Your task to perform on an android device: turn notification dots on Image 0: 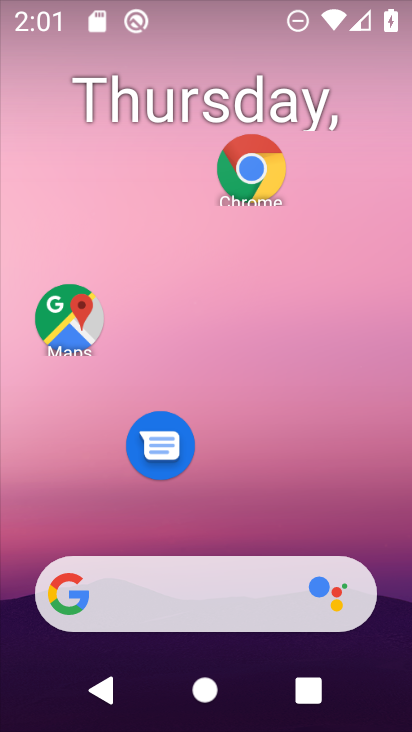
Step 0: drag from (269, 592) to (333, 183)
Your task to perform on an android device: turn notification dots on Image 1: 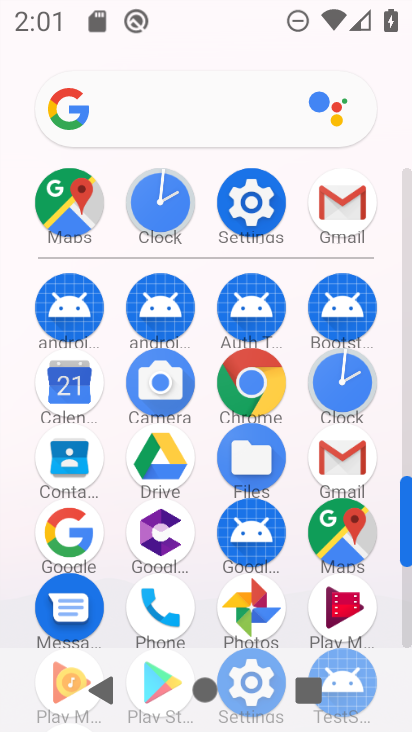
Step 1: click (260, 201)
Your task to perform on an android device: turn notification dots on Image 2: 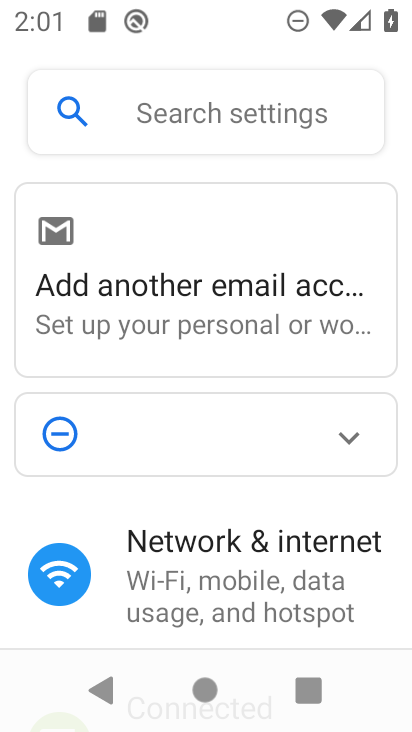
Step 2: click (197, 119)
Your task to perform on an android device: turn notification dots on Image 3: 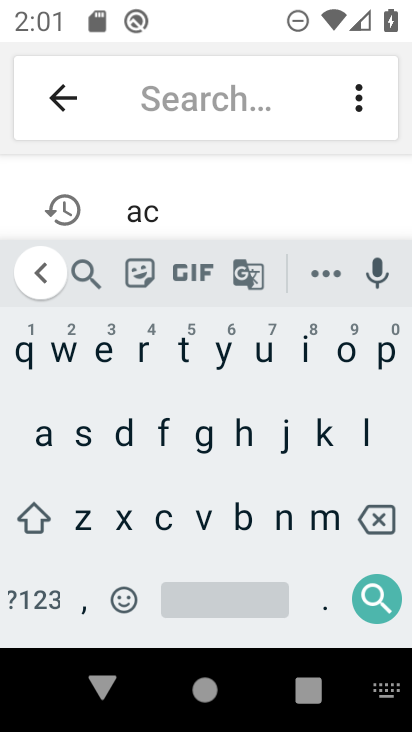
Step 3: click (126, 433)
Your task to perform on an android device: turn notification dots on Image 4: 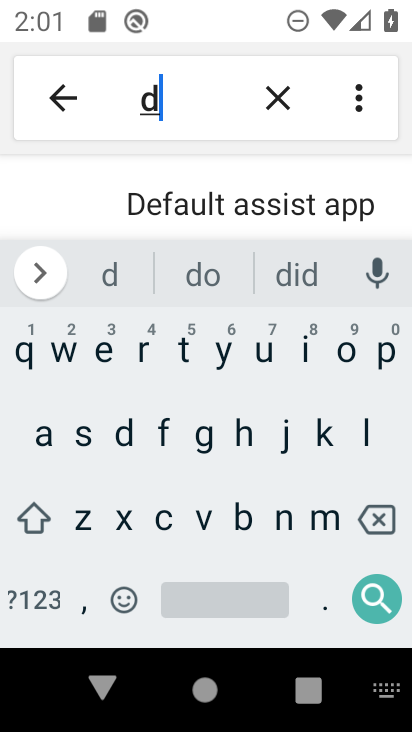
Step 4: click (344, 353)
Your task to perform on an android device: turn notification dots on Image 5: 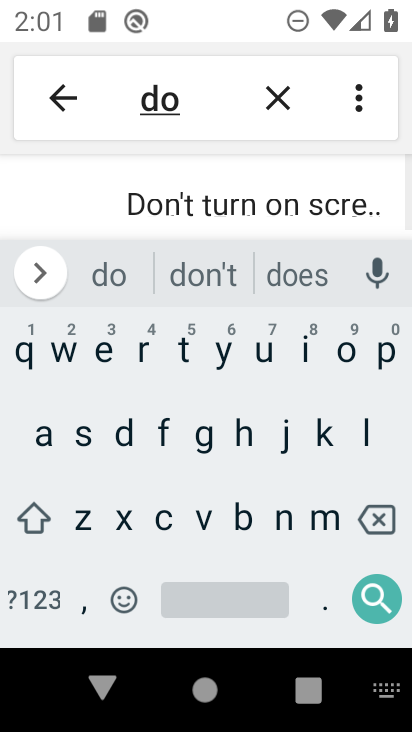
Step 5: click (182, 359)
Your task to perform on an android device: turn notification dots on Image 6: 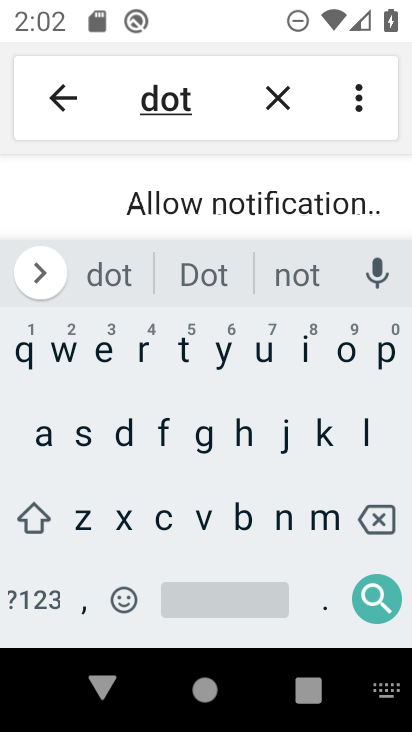
Step 6: click (215, 210)
Your task to perform on an android device: turn notification dots on Image 7: 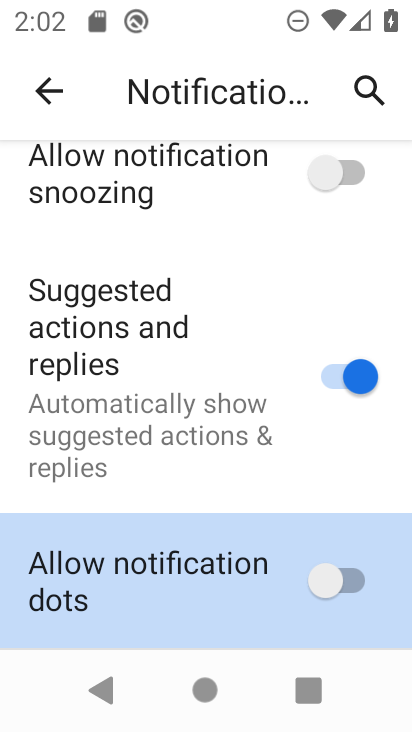
Step 7: click (134, 561)
Your task to perform on an android device: turn notification dots on Image 8: 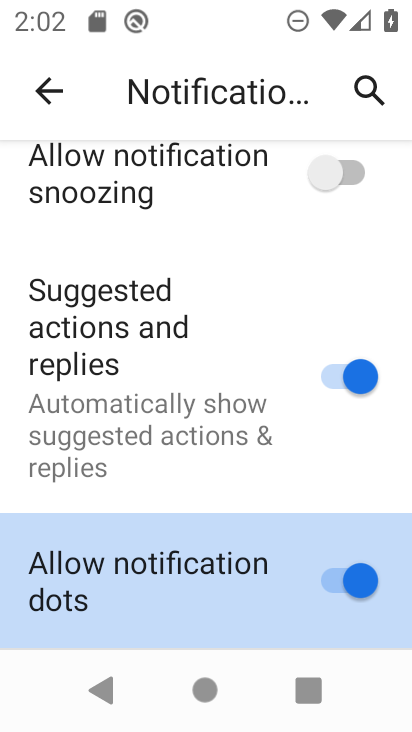
Step 8: task complete